Your task to perform on an android device: change the clock display to show seconds Image 0: 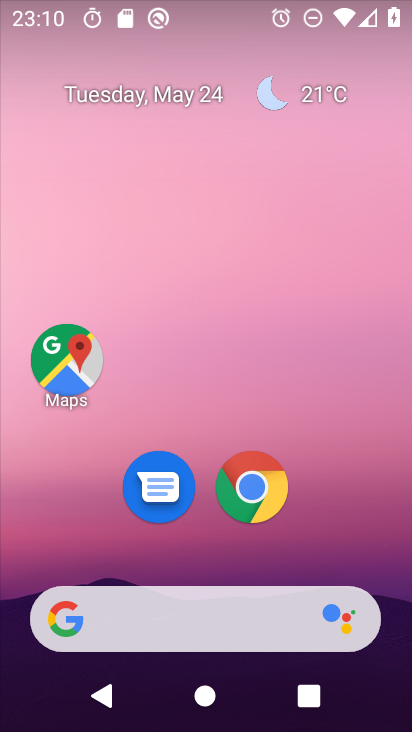
Step 0: drag from (361, 558) to (382, 5)
Your task to perform on an android device: change the clock display to show seconds Image 1: 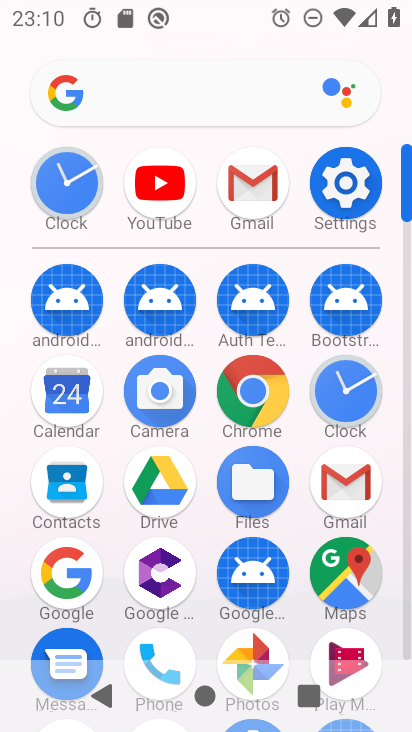
Step 1: click (336, 396)
Your task to perform on an android device: change the clock display to show seconds Image 2: 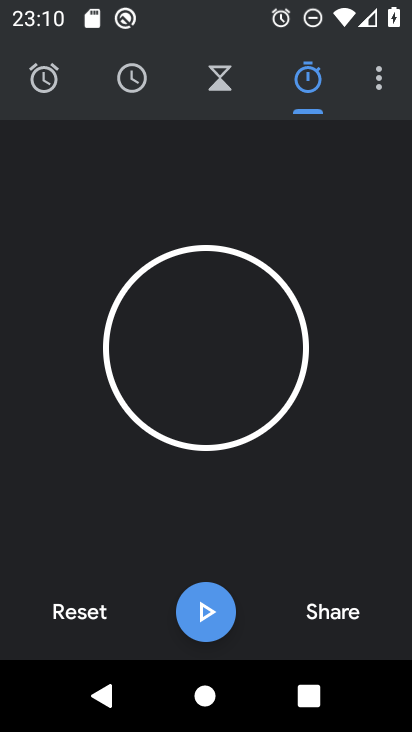
Step 2: click (380, 86)
Your task to perform on an android device: change the clock display to show seconds Image 3: 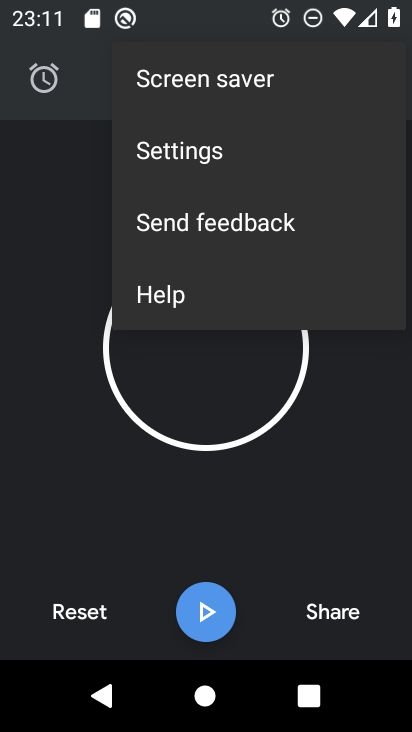
Step 3: click (158, 151)
Your task to perform on an android device: change the clock display to show seconds Image 4: 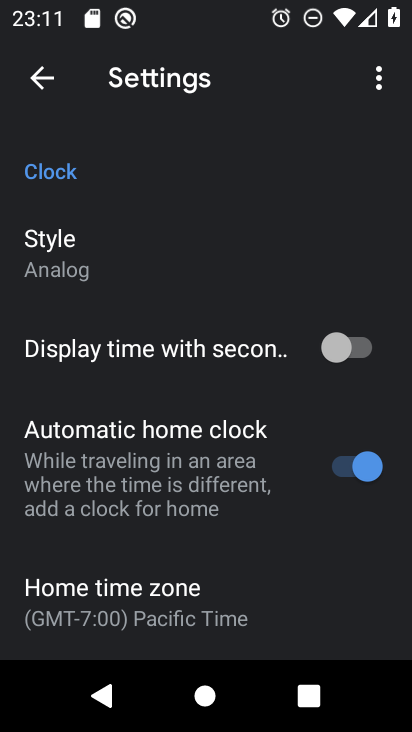
Step 4: click (351, 358)
Your task to perform on an android device: change the clock display to show seconds Image 5: 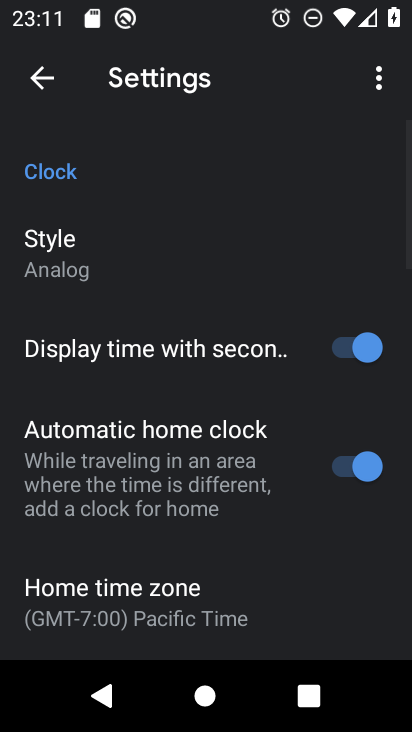
Step 5: task complete